Your task to perform on an android device: Search for flights from Mexico city to Zurich Image 0: 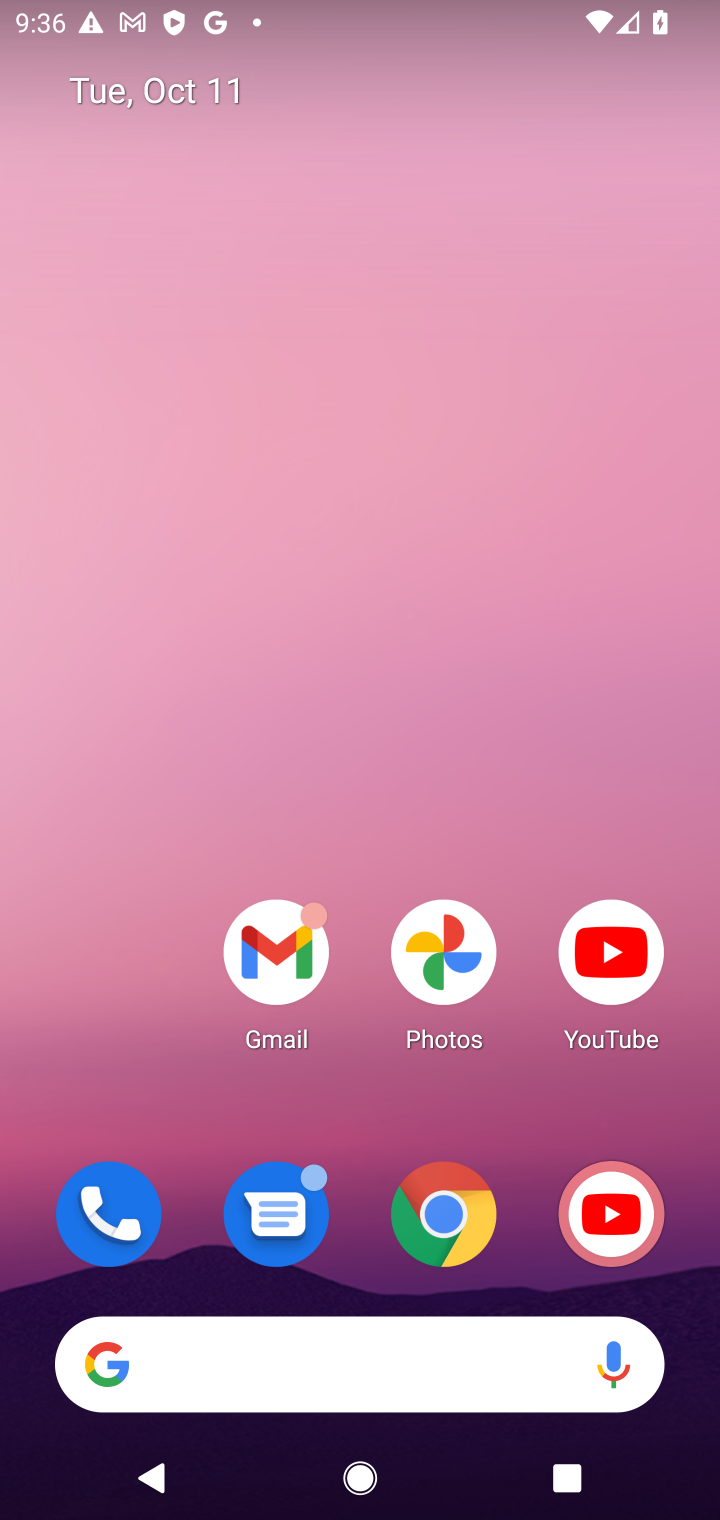
Step 0: drag from (366, 1119) to (185, 185)
Your task to perform on an android device: Search for flights from Mexico city to Zurich Image 1: 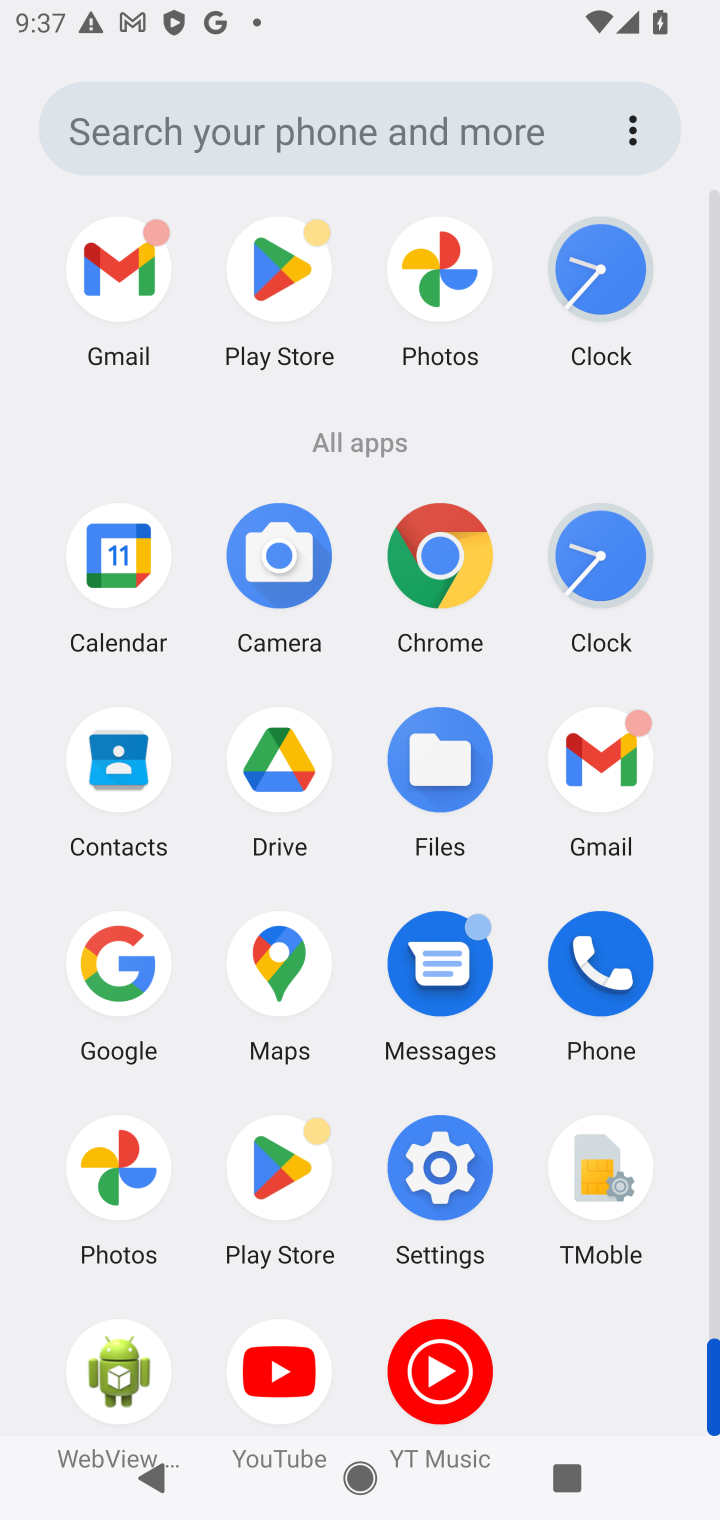
Step 1: click (437, 555)
Your task to perform on an android device: Search for flights from Mexico city to Zurich Image 2: 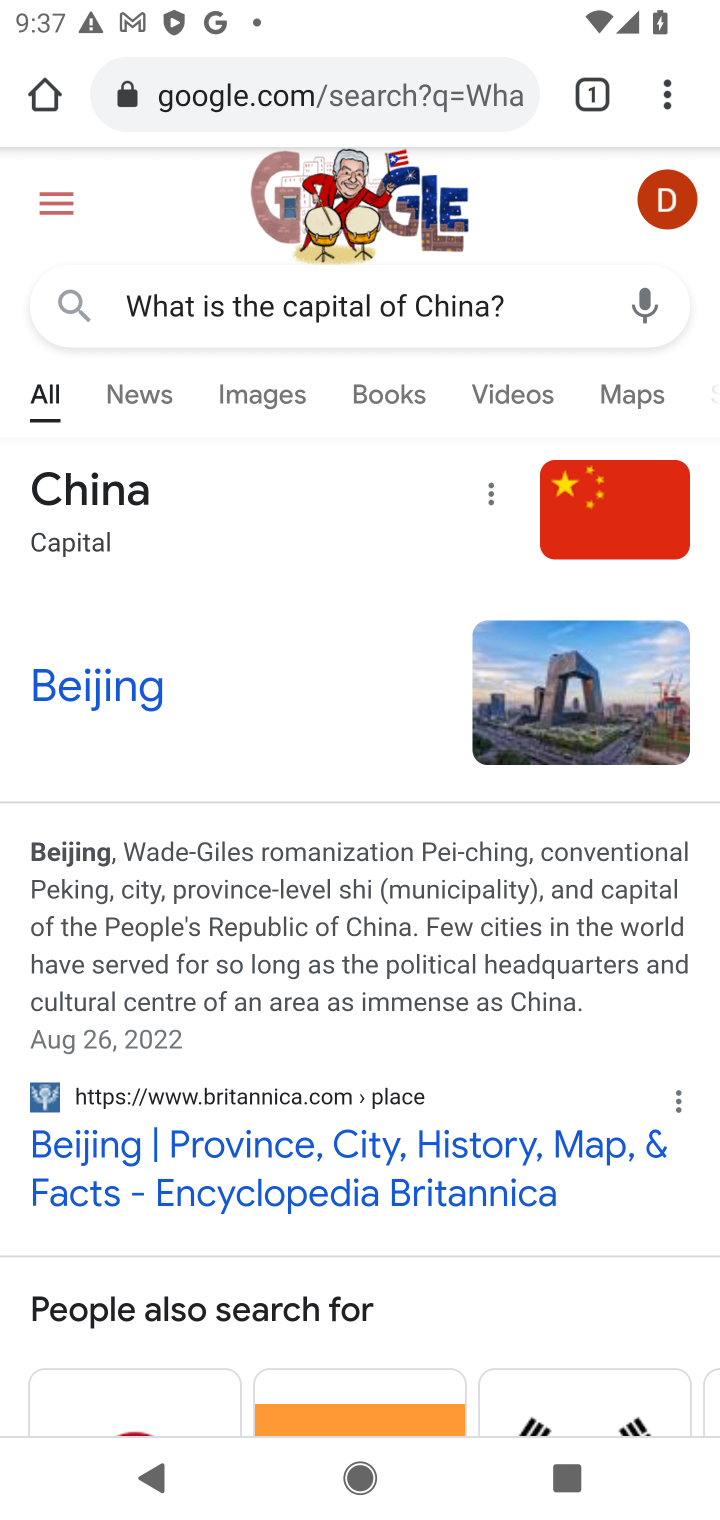
Step 2: click (339, 112)
Your task to perform on an android device: Search for flights from Mexico city to Zurich Image 3: 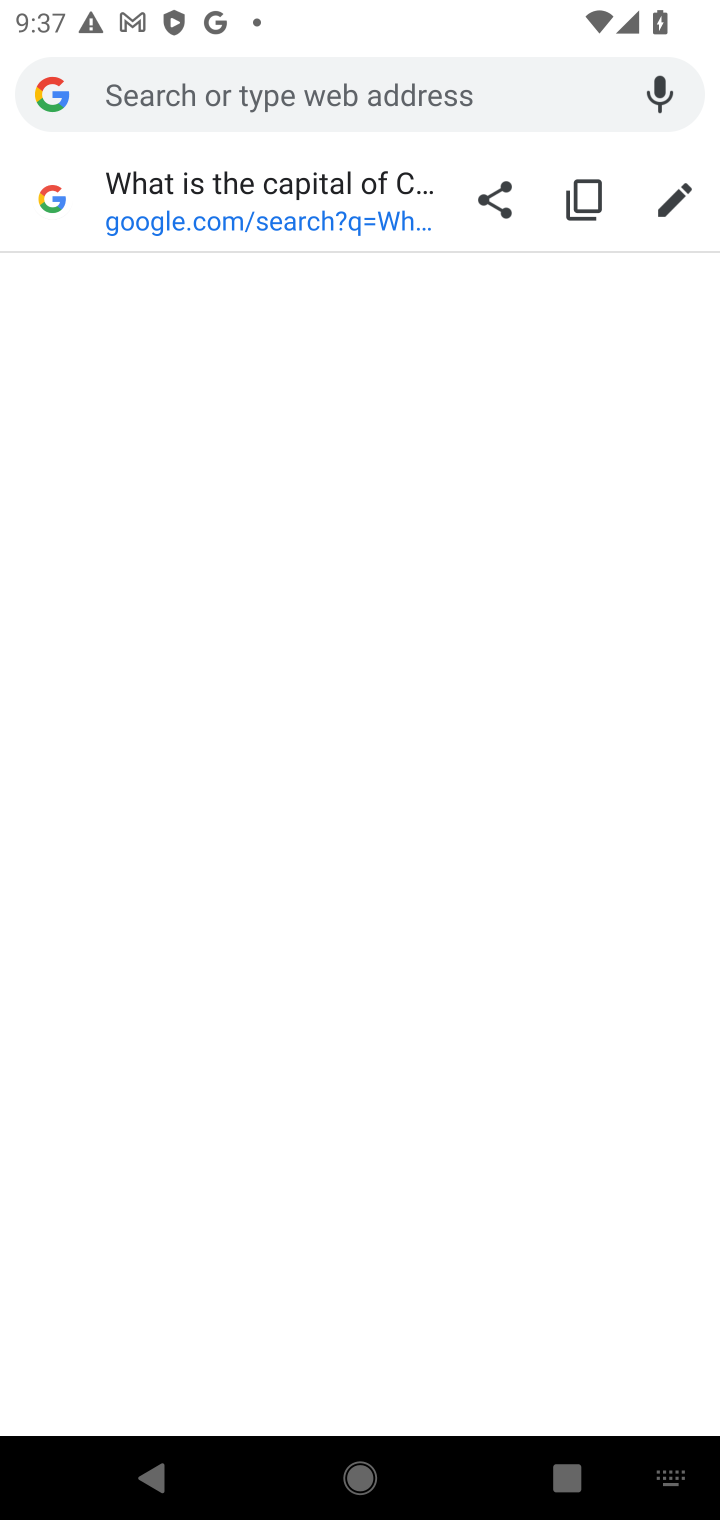
Step 3: type "flights from Mexico city to Zurich"
Your task to perform on an android device: Search for flights from Mexico city to Zurich Image 4: 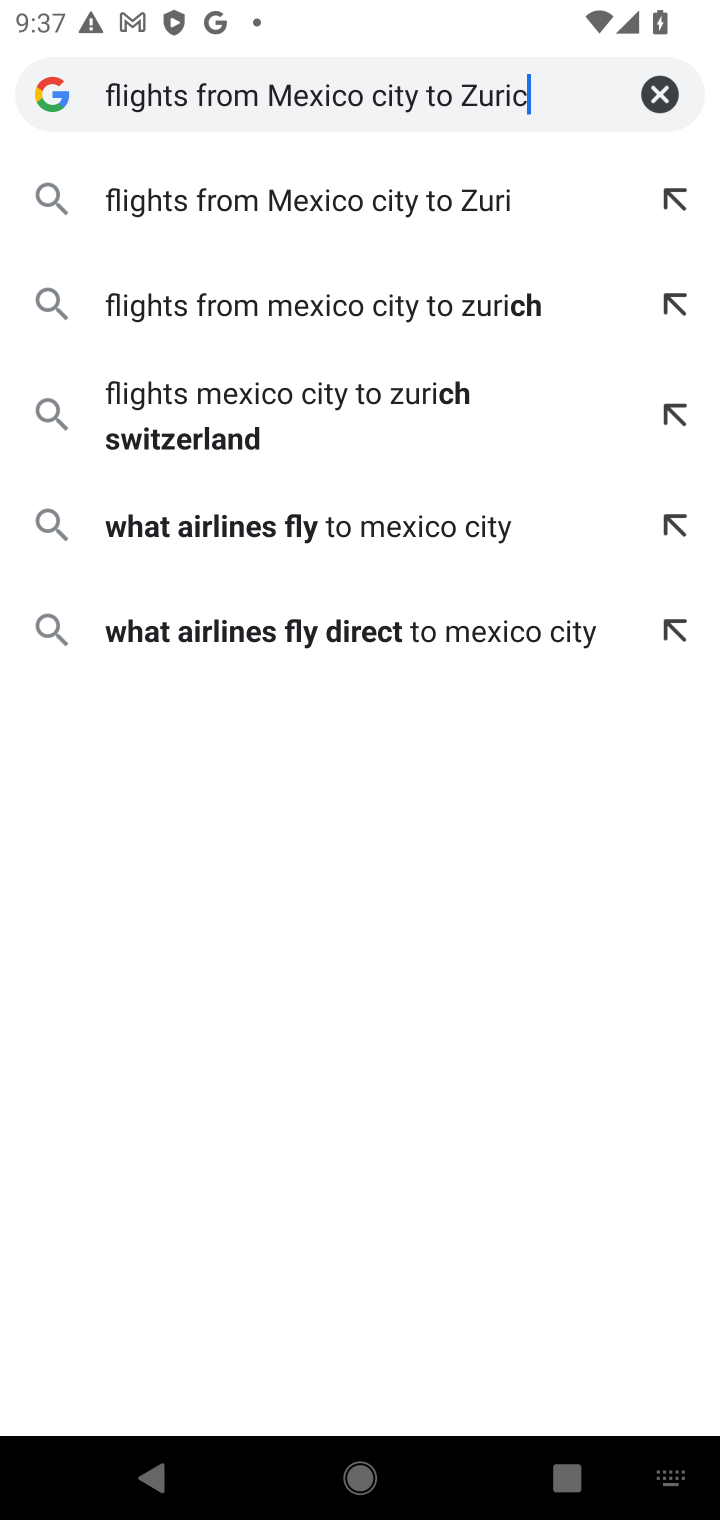
Step 4: press enter
Your task to perform on an android device: Search for flights from Mexico city to Zurich Image 5: 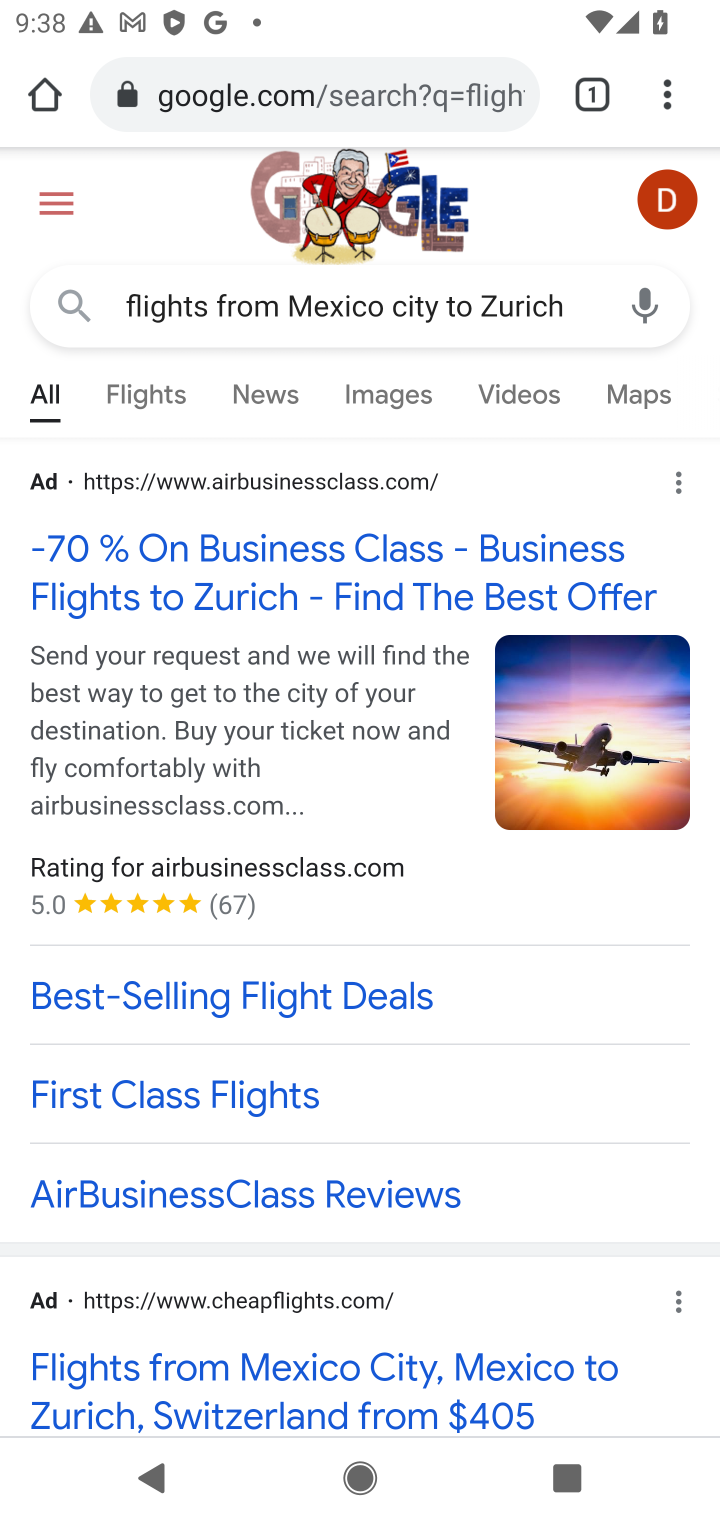
Step 5: task complete